Your task to perform on an android device: Go to accessibility settings Image 0: 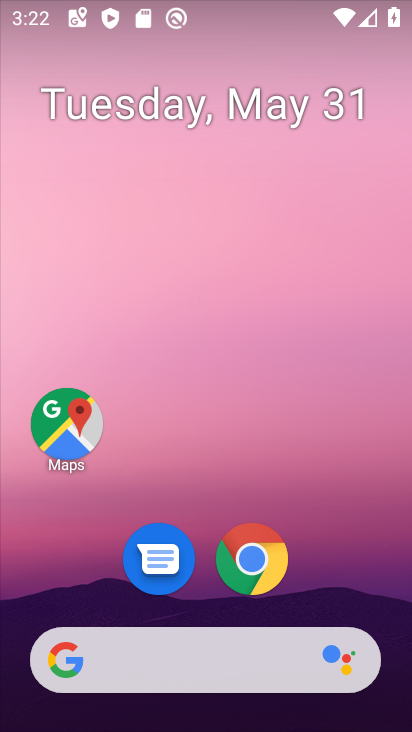
Step 0: drag from (179, 730) to (183, 117)
Your task to perform on an android device: Go to accessibility settings Image 1: 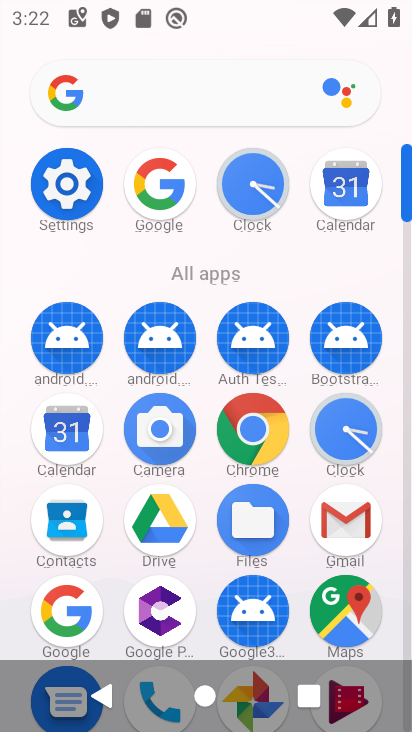
Step 1: click (71, 185)
Your task to perform on an android device: Go to accessibility settings Image 2: 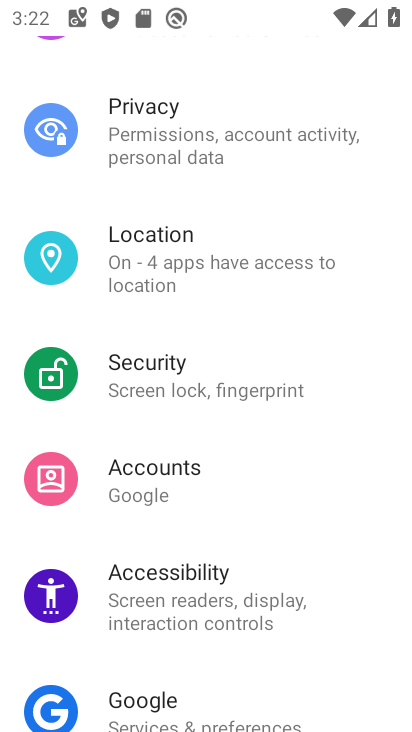
Step 2: click (186, 592)
Your task to perform on an android device: Go to accessibility settings Image 3: 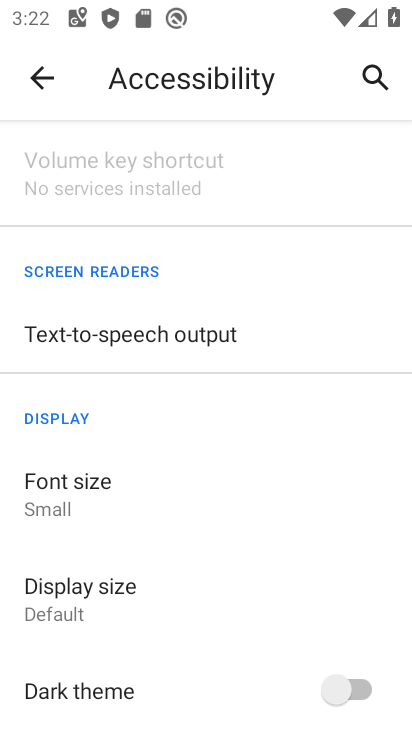
Step 3: task complete